Your task to perform on an android device: clear all cookies in the chrome app Image 0: 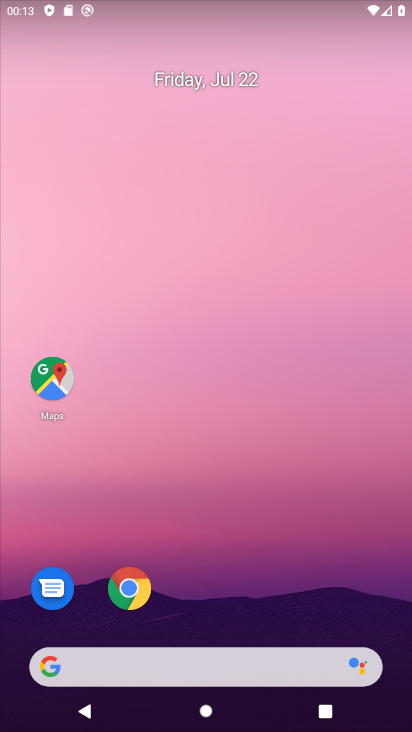
Step 0: click (131, 584)
Your task to perform on an android device: clear all cookies in the chrome app Image 1: 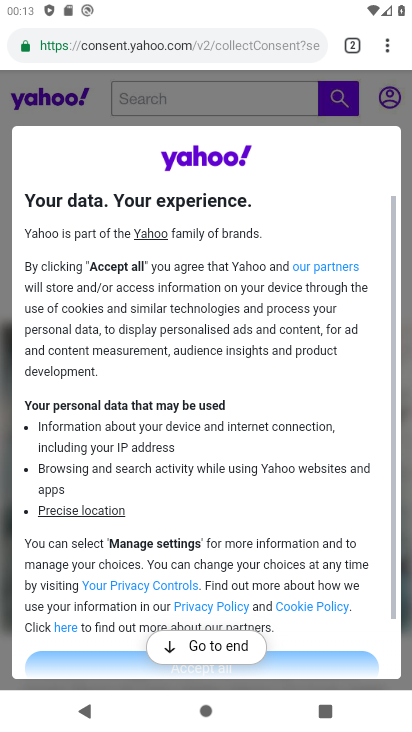
Step 1: drag from (391, 37) to (230, 260)
Your task to perform on an android device: clear all cookies in the chrome app Image 2: 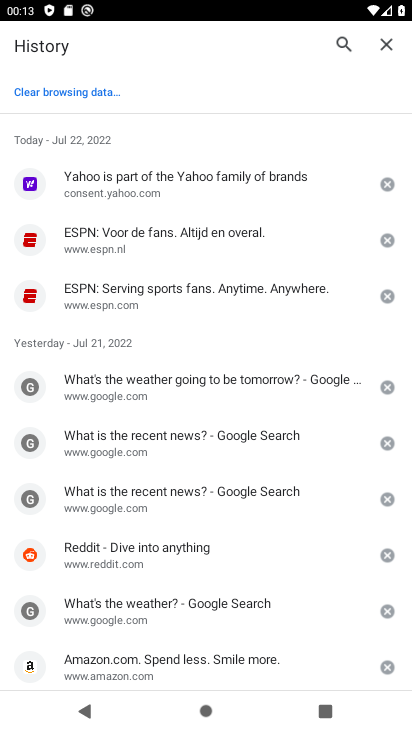
Step 2: click (41, 92)
Your task to perform on an android device: clear all cookies in the chrome app Image 3: 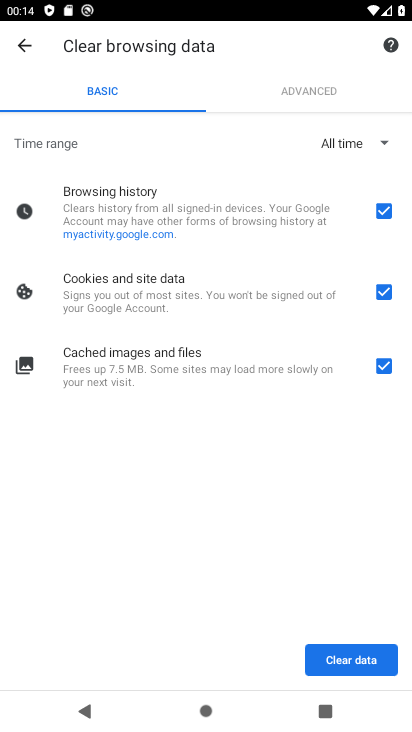
Step 3: click (393, 203)
Your task to perform on an android device: clear all cookies in the chrome app Image 4: 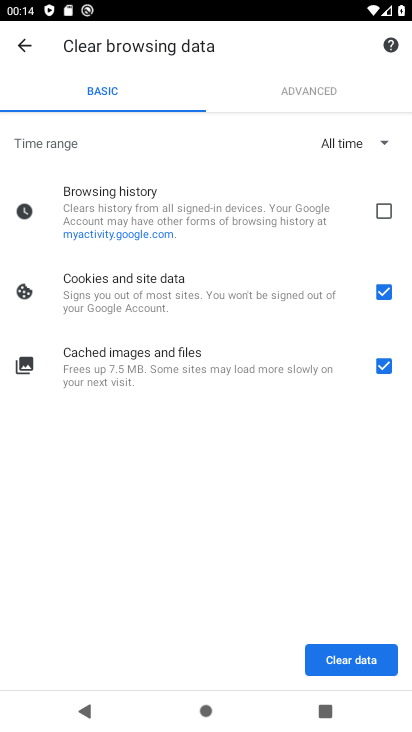
Step 4: click (387, 363)
Your task to perform on an android device: clear all cookies in the chrome app Image 5: 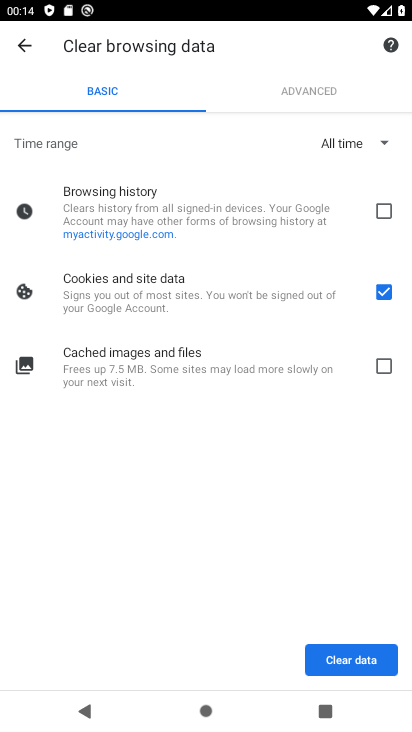
Step 5: click (351, 653)
Your task to perform on an android device: clear all cookies in the chrome app Image 6: 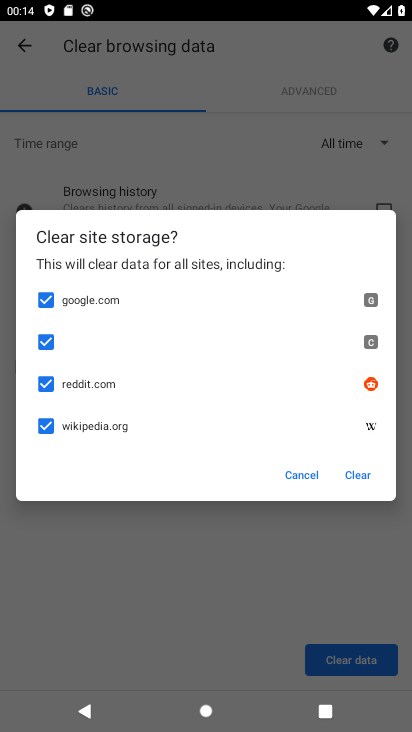
Step 6: click (363, 474)
Your task to perform on an android device: clear all cookies in the chrome app Image 7: 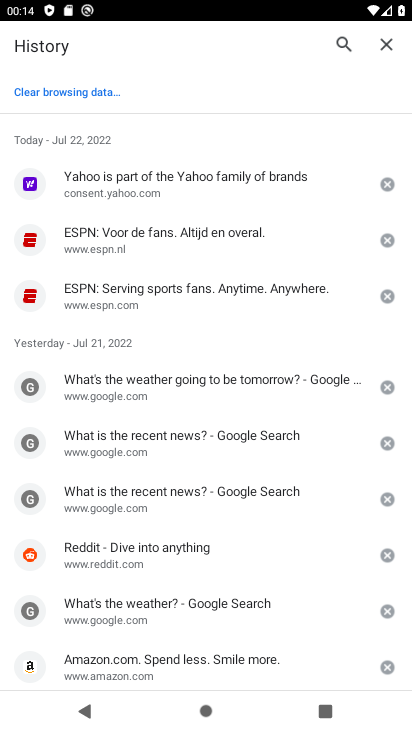
Step 7: task complete